Your task to perform on an android device: uninstall "Google Sheets" Image 0: 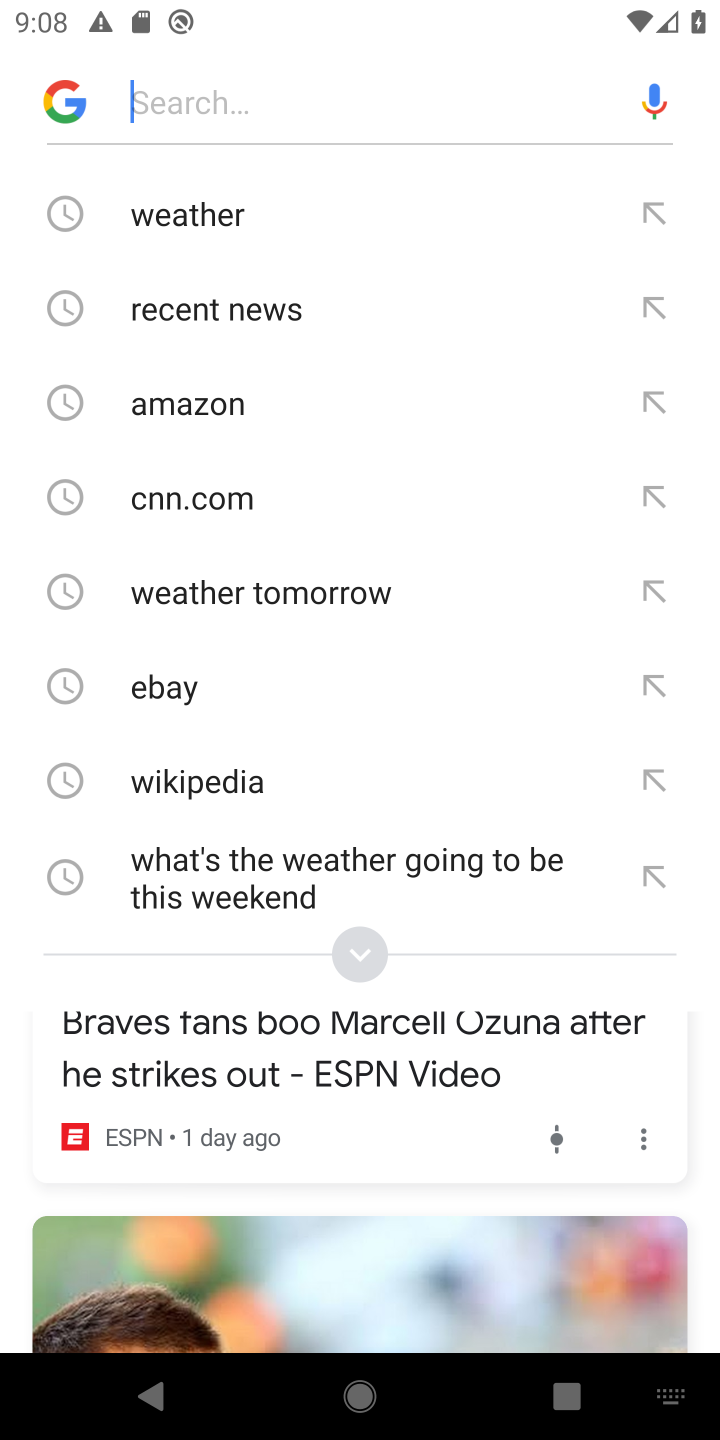
Step 0: press home button
Your task to perform on an android device: uninstall "Google Sheets" Image 1: 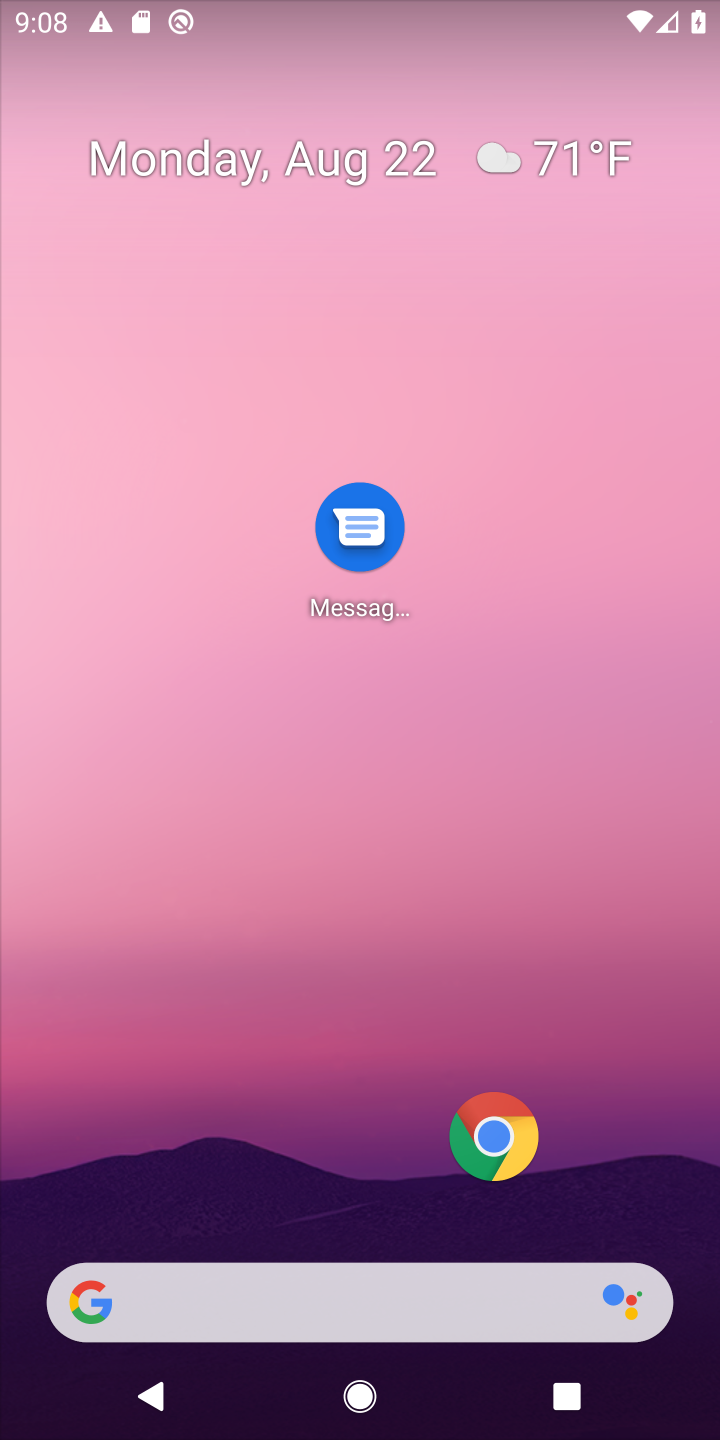
Step 1: drag from (344, 1119) to (342, 271)
Your task to perform on an android device: uninstall "Google Sheets" Image 2: 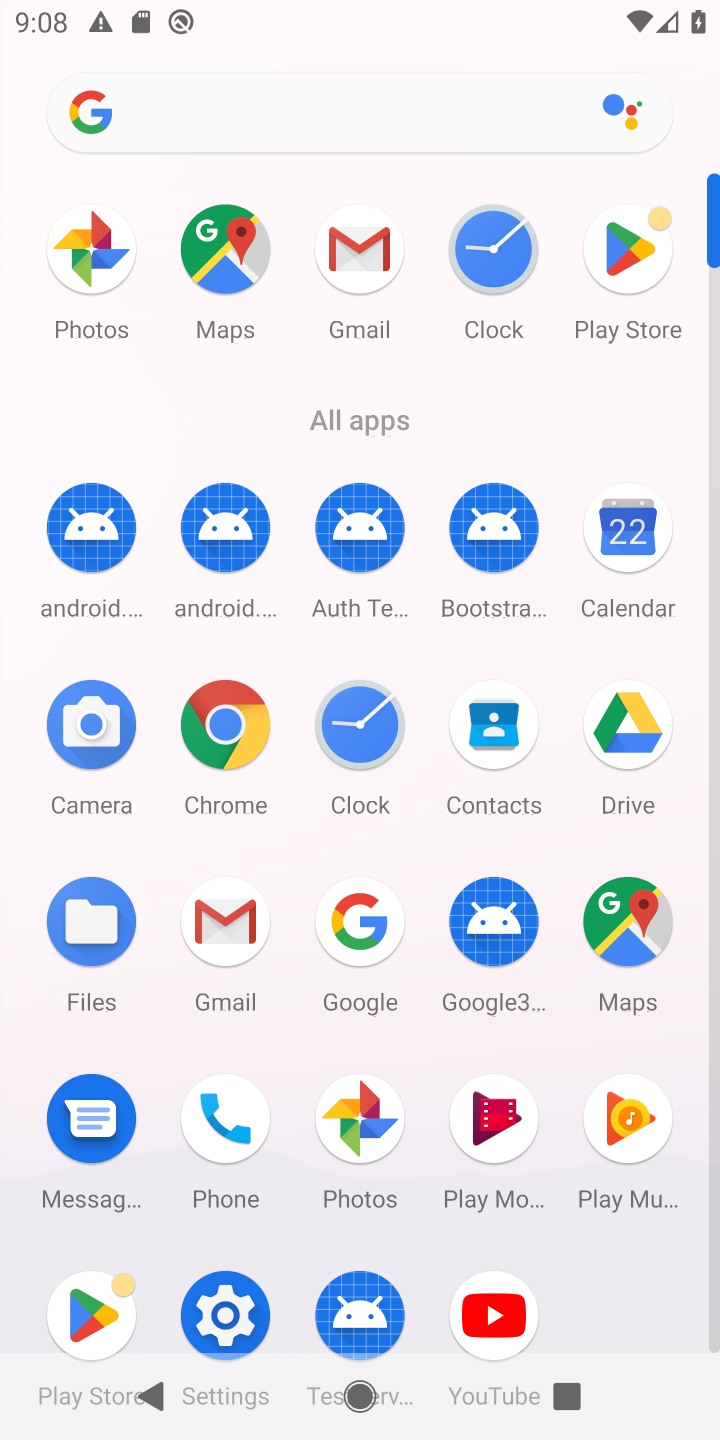
Step 2: click (639, 263)
Your task to perform on an android device: uninstall "Google Sheets" Image 3: 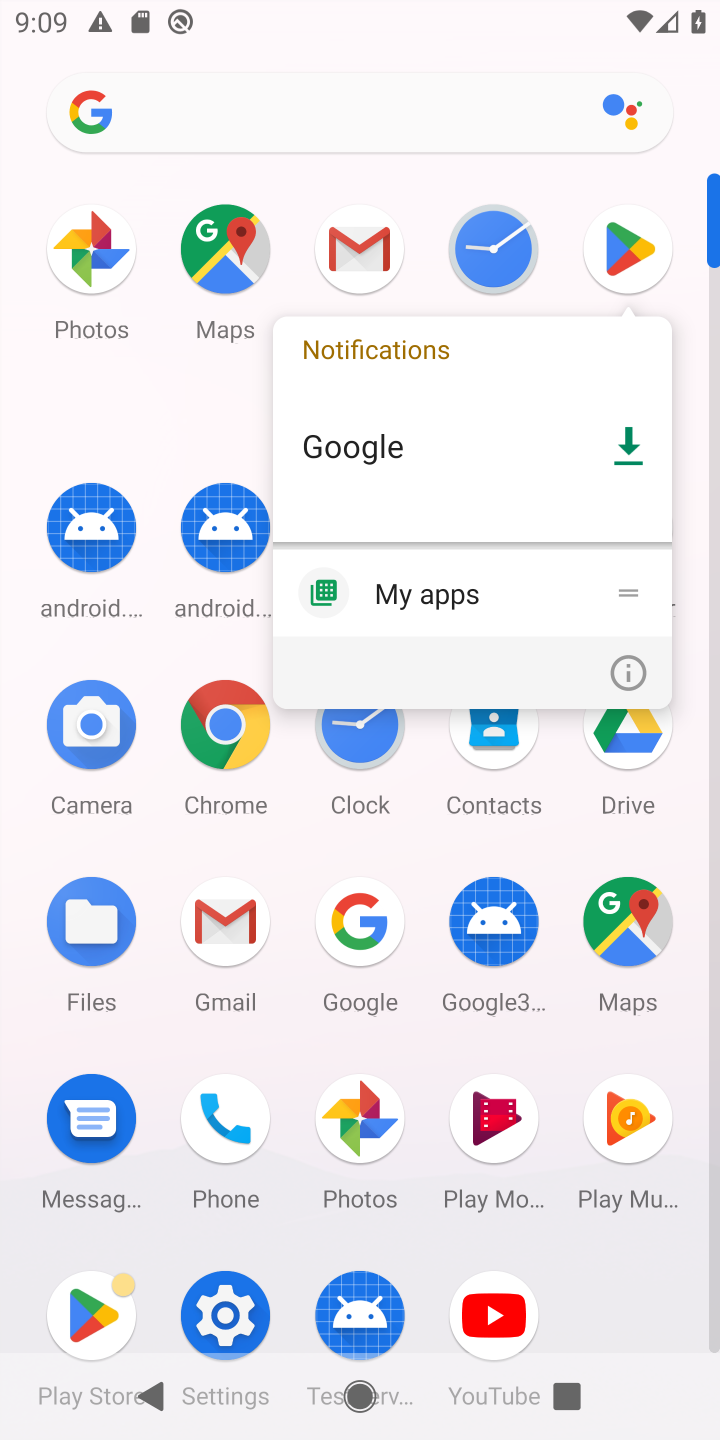
Step 3: click (108, 1303)
Your task to perform on an android device: uninstall "Google Sheets" Image 4: 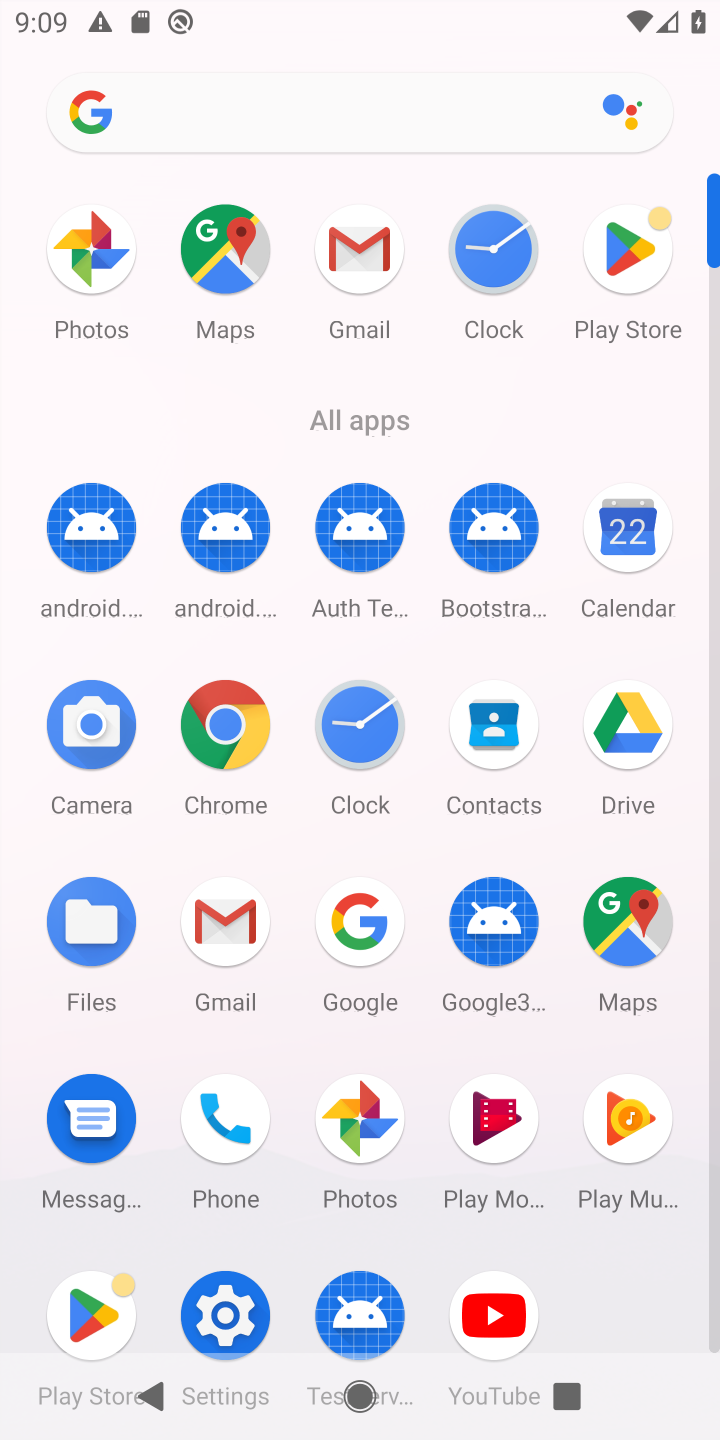
Step 4: click (108, 1295)
Your task to perform on an android device: uninstall "Google Sheets" Image 5: 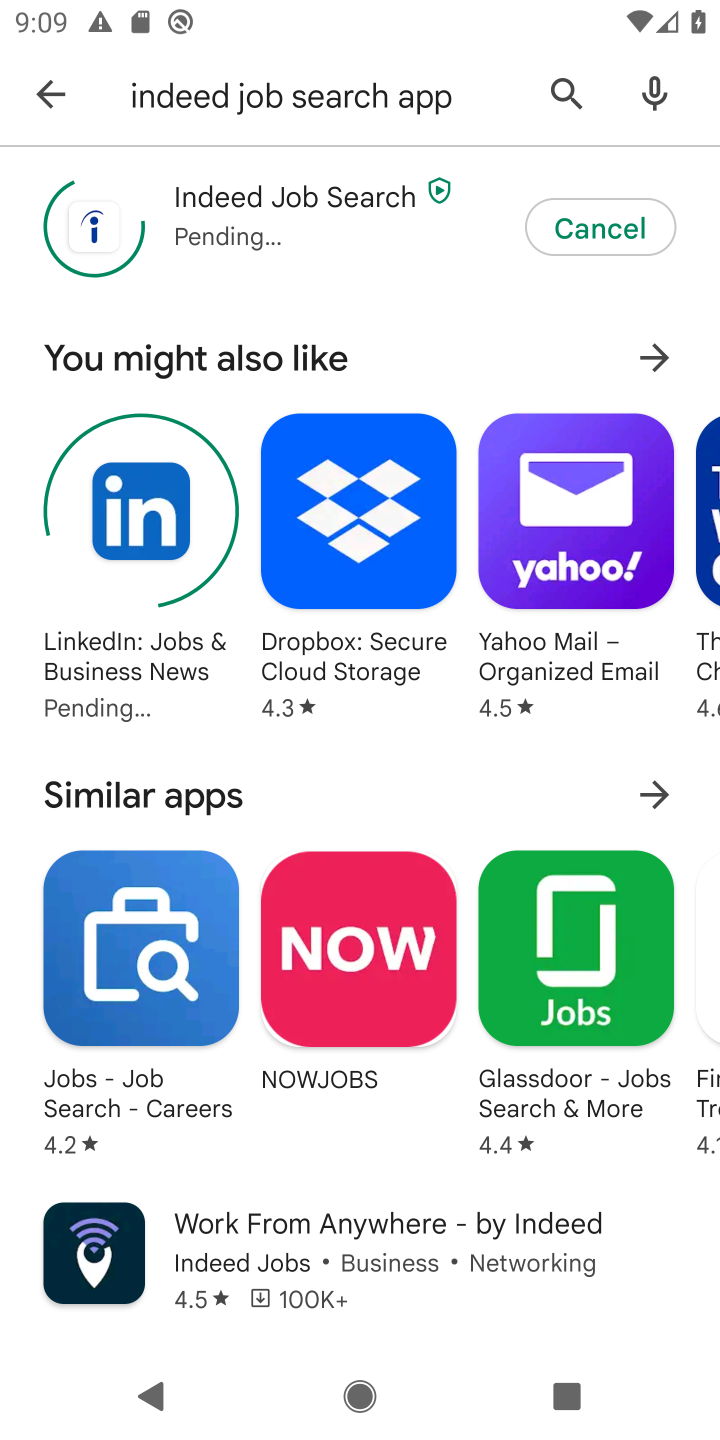
Step 5: click (38, 84)
Your task to perform on an android device: uninstall "Google Sheets" Image 6: 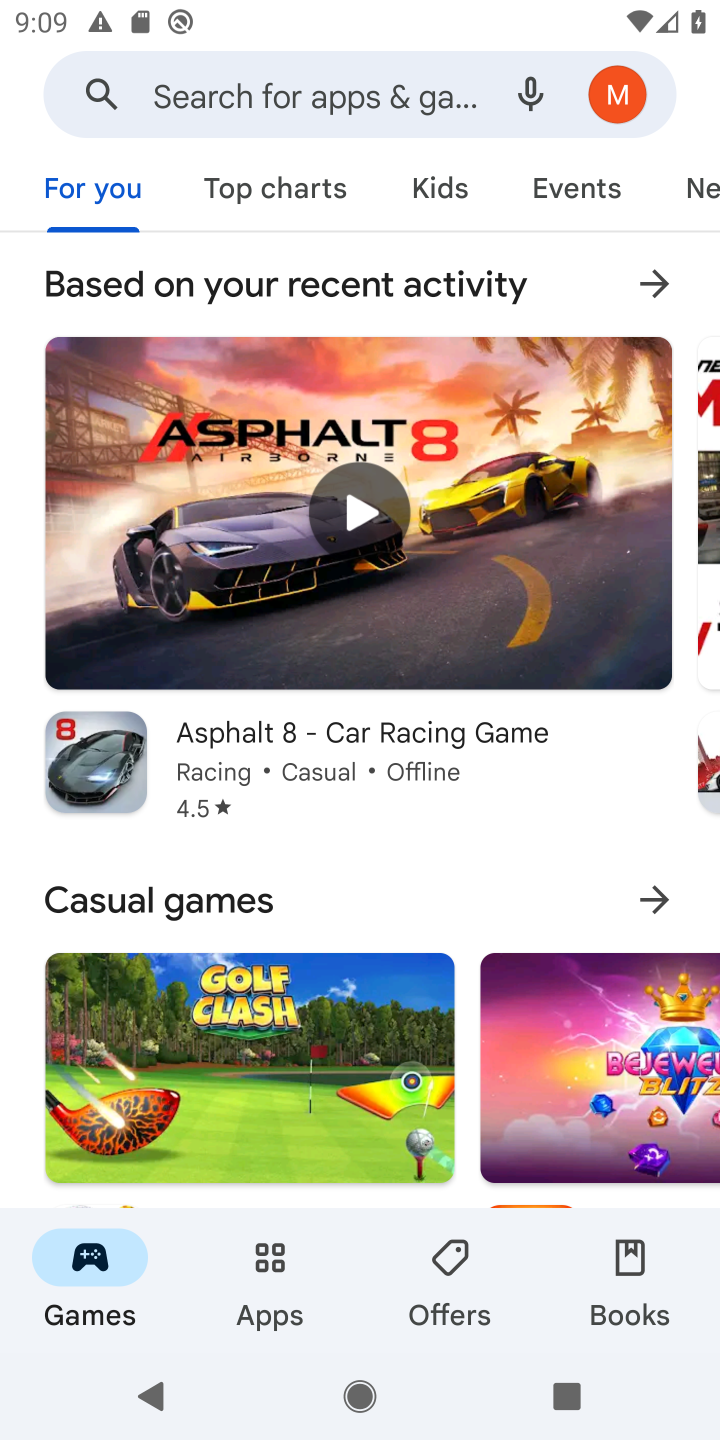
Step 6: click (367, 91)
Your task to perform on an android device: uninstall "Google Sheets" Image 7: 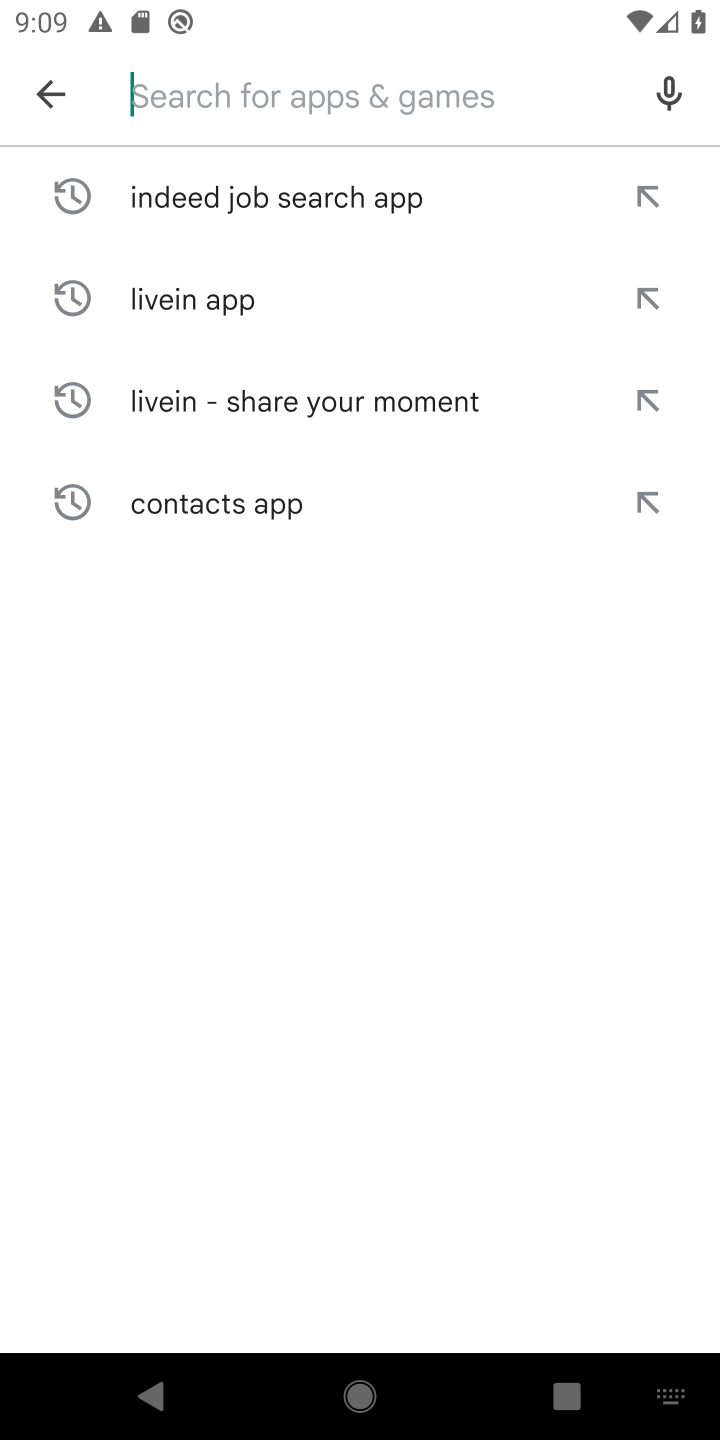
Step 7: type "Google Sheets "
Your task to perform on an android device: uninstall "Google Sheets" Image 8: 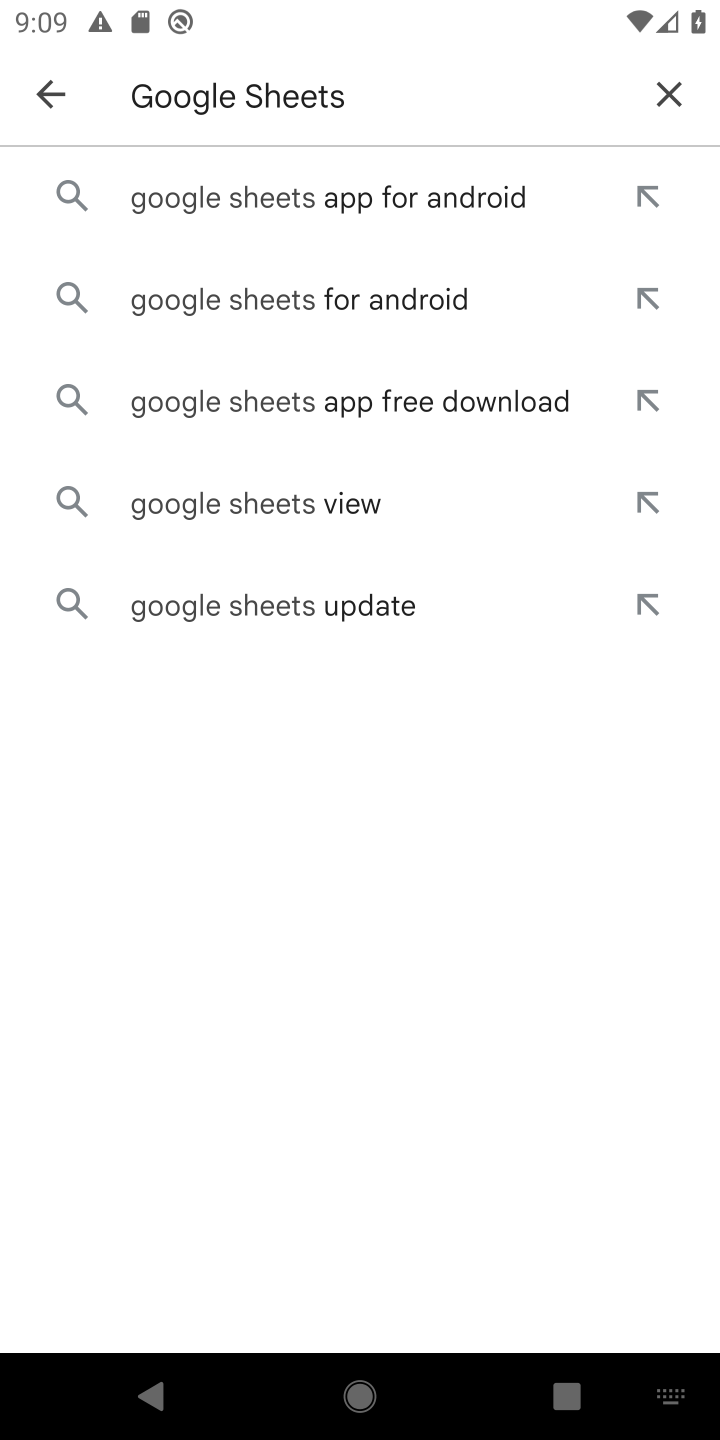
Step 8: click (458, 187)
Your task to perform on an android device: uninstall "Google Sheets" Image 9: 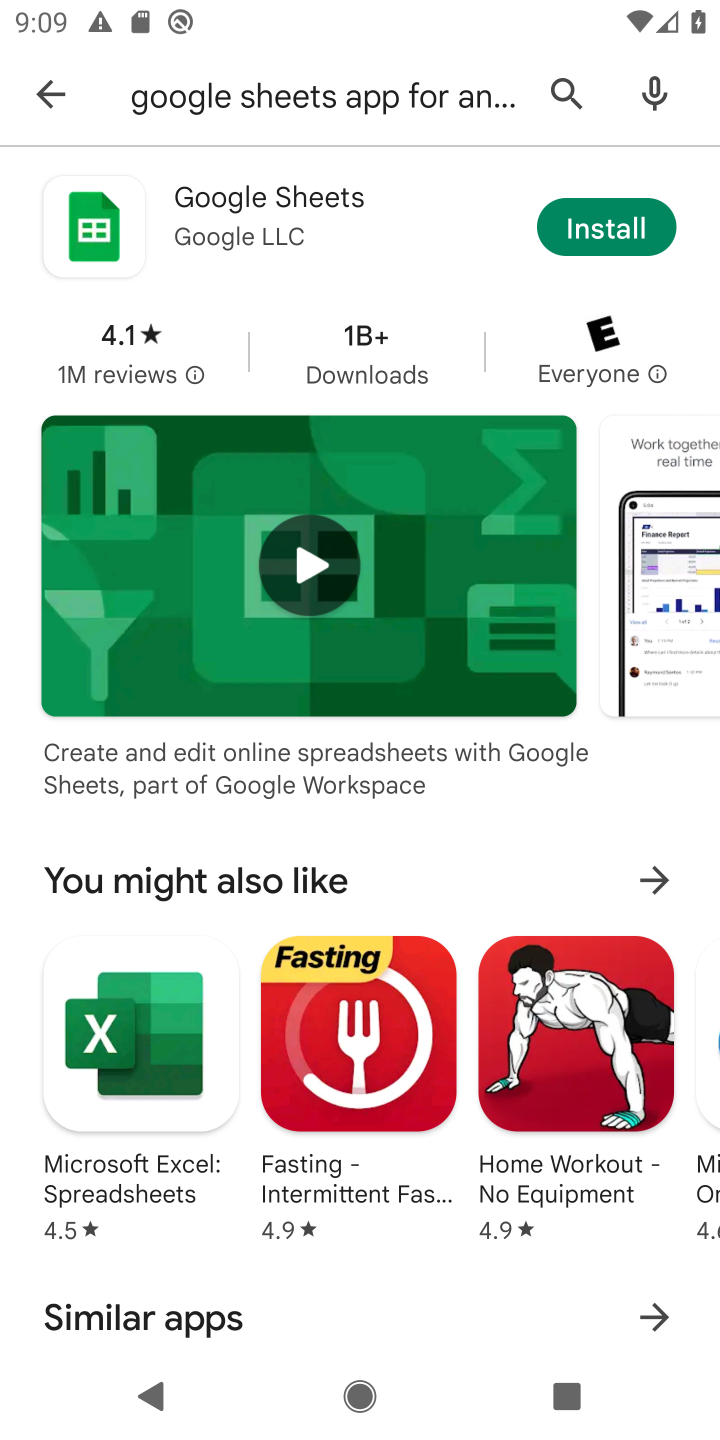
Step 9: click (625, 236)
Your task to perform on an android device: uninstall "Google Sheets" Image 10: 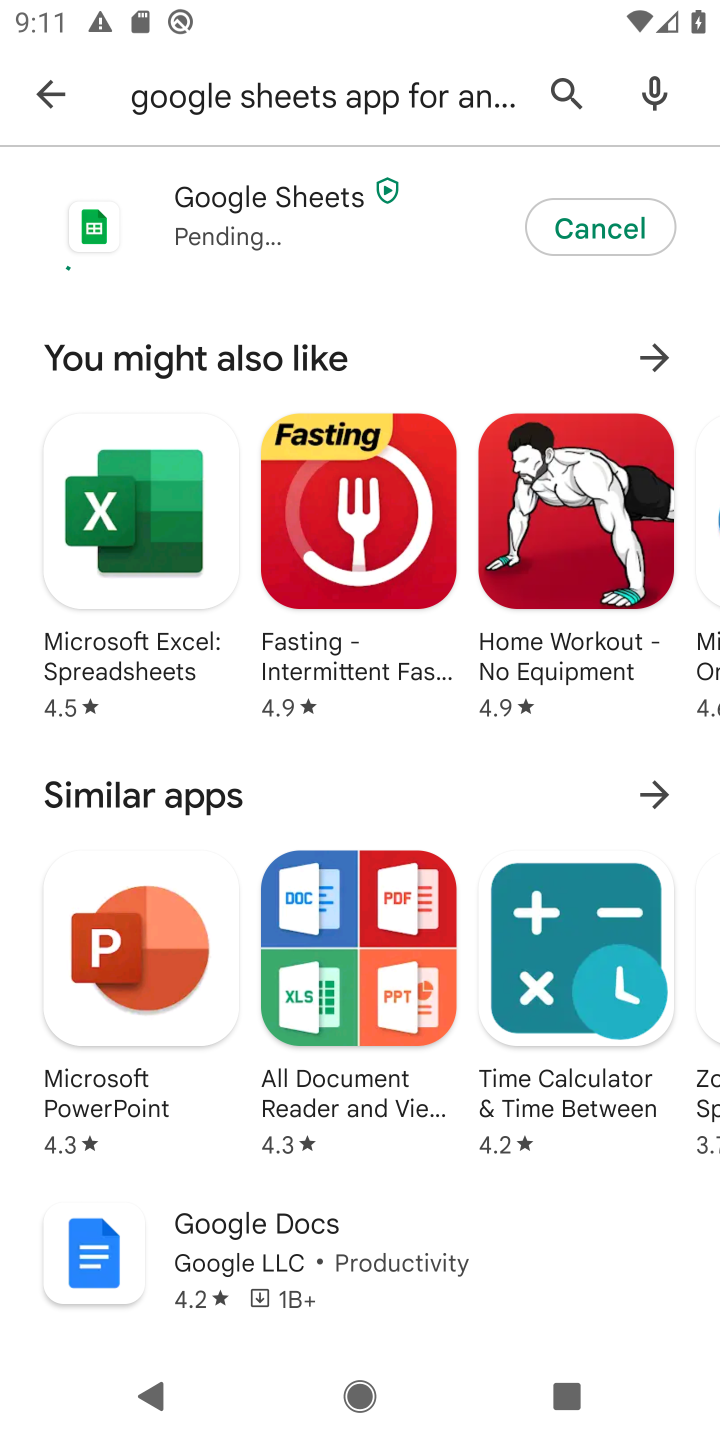
Step 10: task complete